Your task to perform on an android device: open a new tab in the chrome app Image 0: 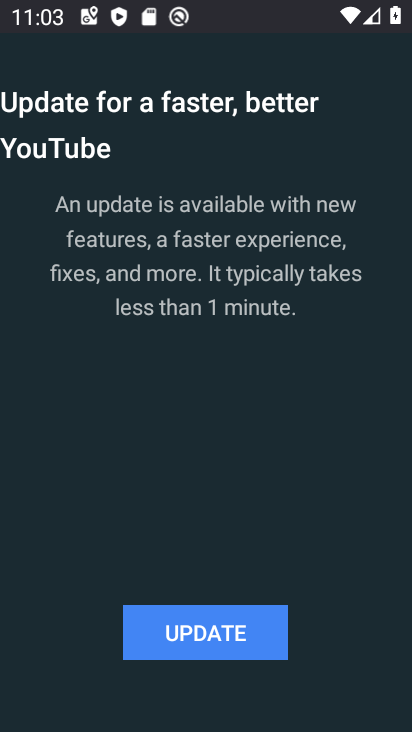
Step 0: press home button
Your task to perform on an android device: open a new tab in the chrome app Image 1: 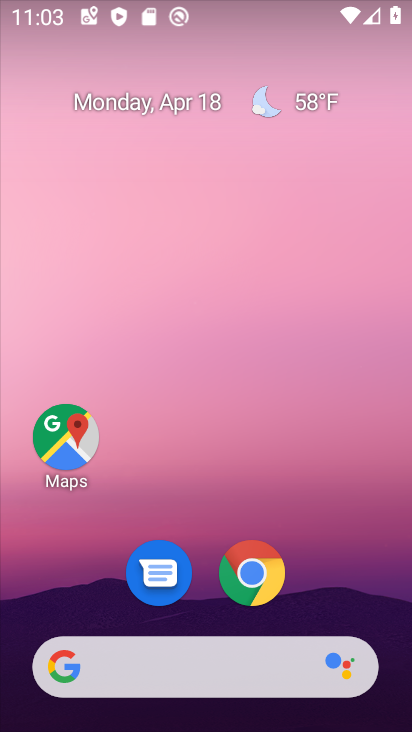
Step 1: drag from (313, 603) to (320, 43)
Your task to perform on an android device: open a new tab in the chrome app Image 2: 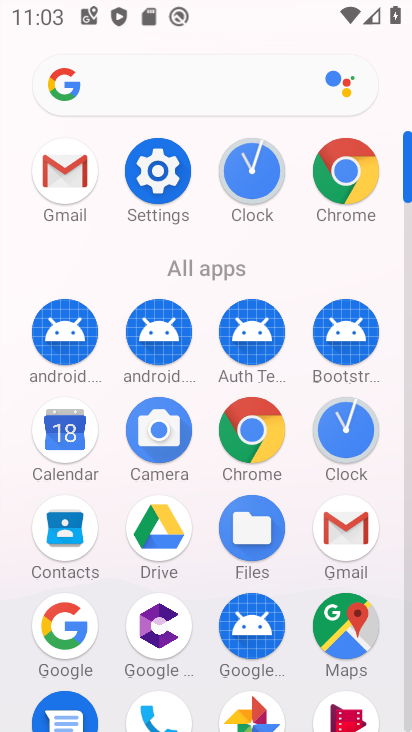
Step 2: click (353, 183)
Your task to perform on an android device: open a new tab in the chrome app Image 3: 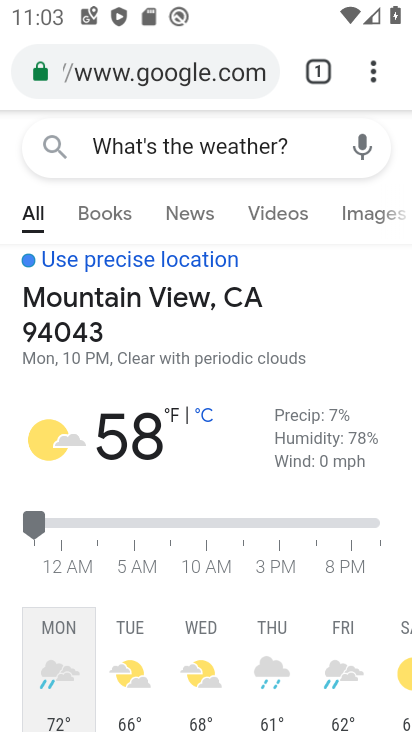
Step 3: task complete